Your task to perform on an android device: Open settings on Google Maps Image 0: 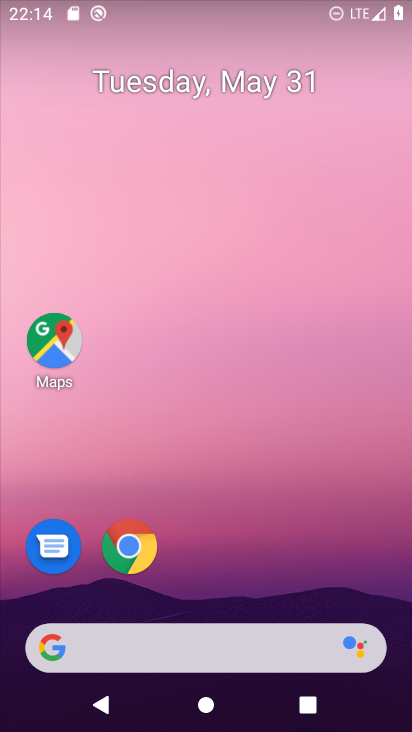
Step 0: click (57, 350)
Your task to perform on an android device: Open settings on Google Maps Image 1: 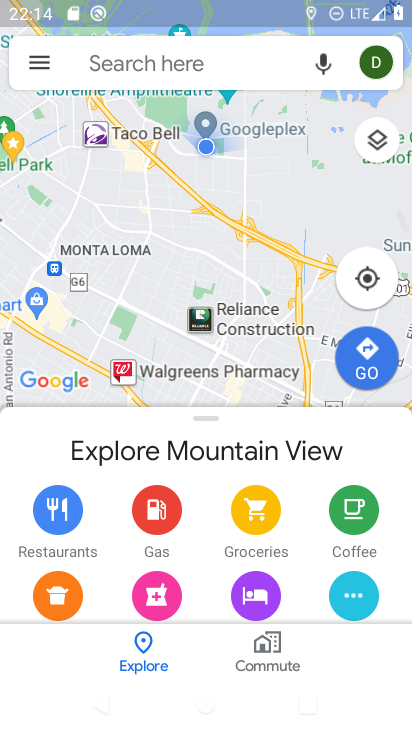
Step 1: task complete